Your task to perform on an android device: Open the Play Movies app and select the watchlist tab. Image 0: 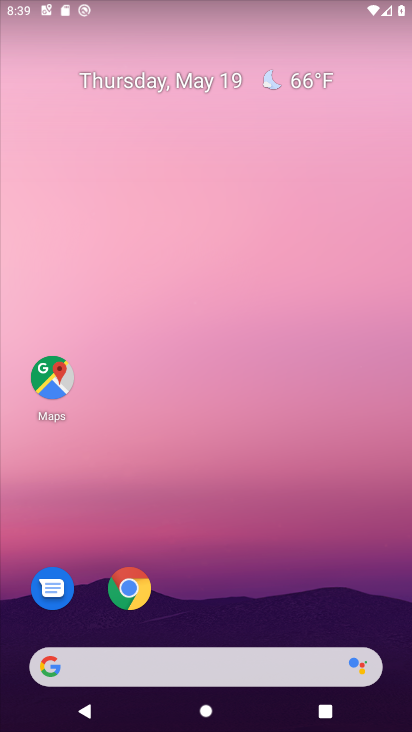
Step 0: drag from (383, 602) to (370, 248)
Your task to perform on an android device: Open the Play Movies app and select the watchlist tab. Image 1: 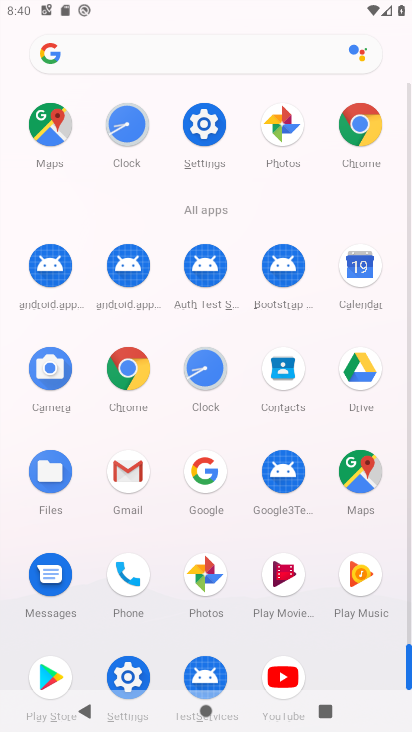
Step 1: click (283, 590)
Your task to perform on an android device: Open the Play Movies app and select the watchlist tab. Image 2: 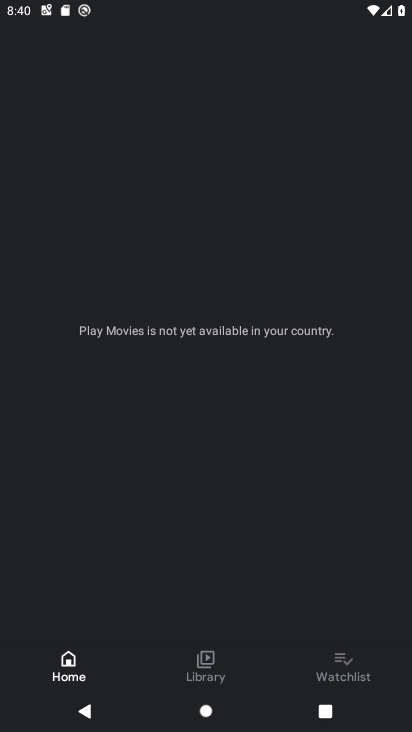
Step 2: click (358, 674)
Your task to perform on an android device: Open the Play Movies app and select the watchlist tab. Image 3: 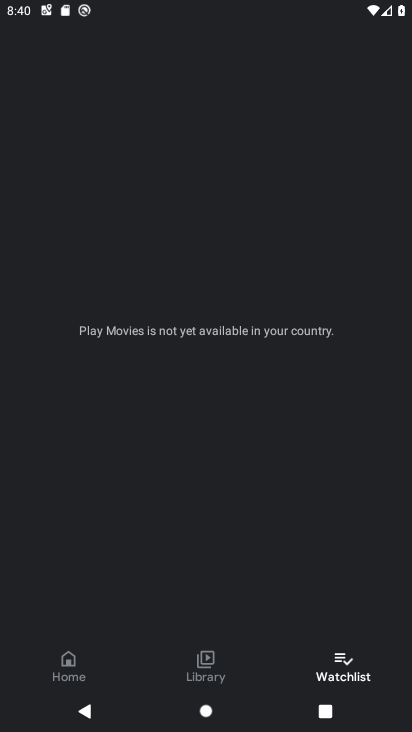
Step 3: task complete